Your task to perform on an android device: Search for the best rated headphones on AliExpress. Image 0: 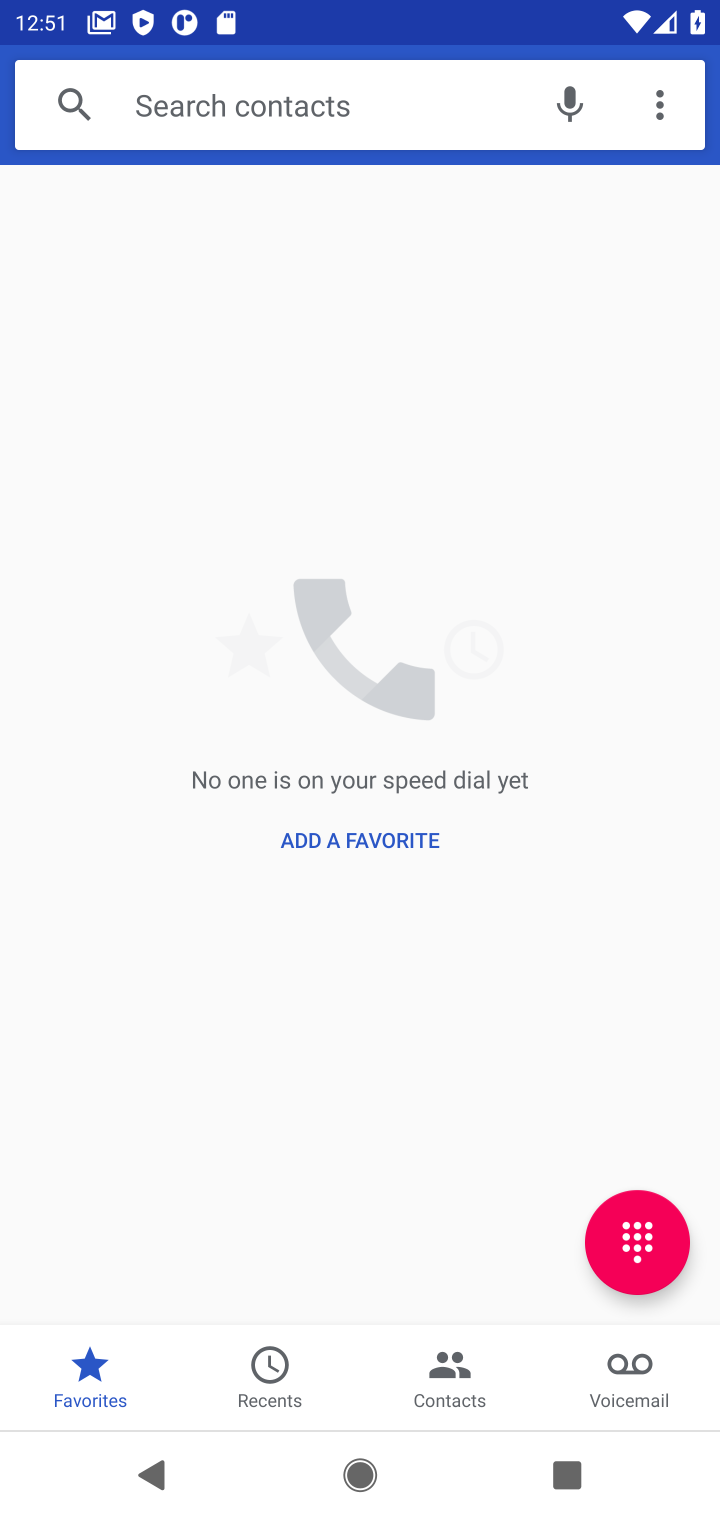
Step 0: press home button
Your task to perform on an android device: Search for the best rated headphones on AliExpress. Image 1: 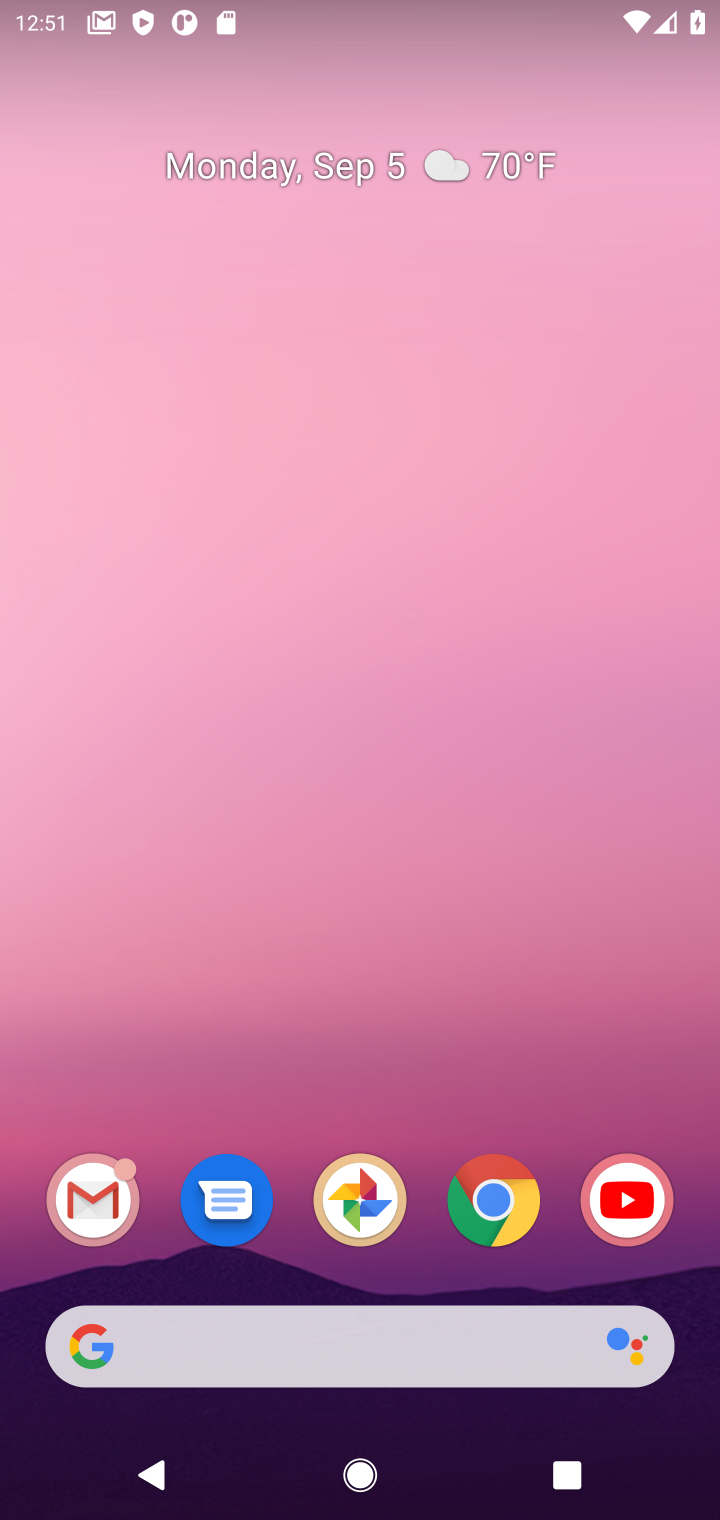
Step 1: click (511, 1196)
Your task to perform on an android device: Search for the best rated headphones on AliExpress. Image 2: 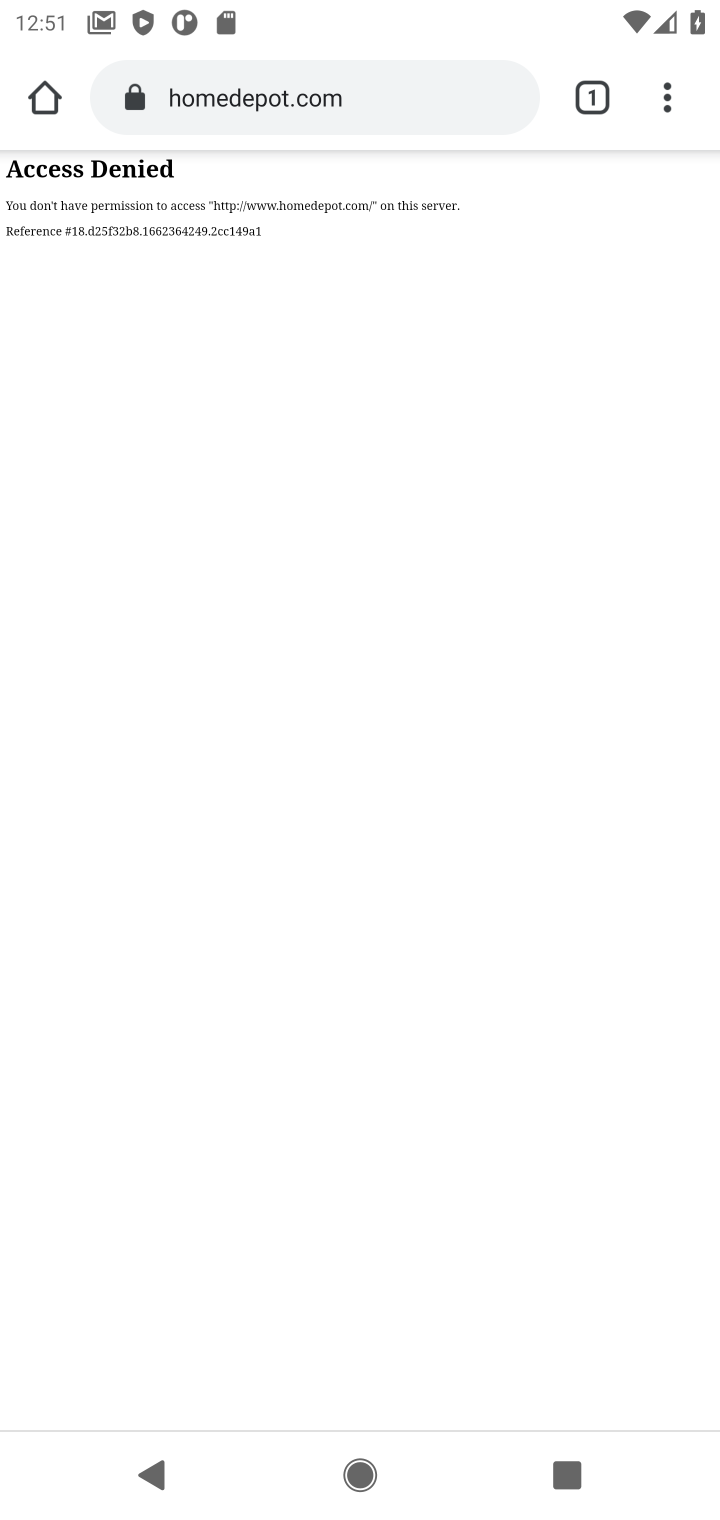
Step 2: click (511, 1196)
Your task to perform on an android device: Search for the best rated headphones on AliExpress. Image 3: 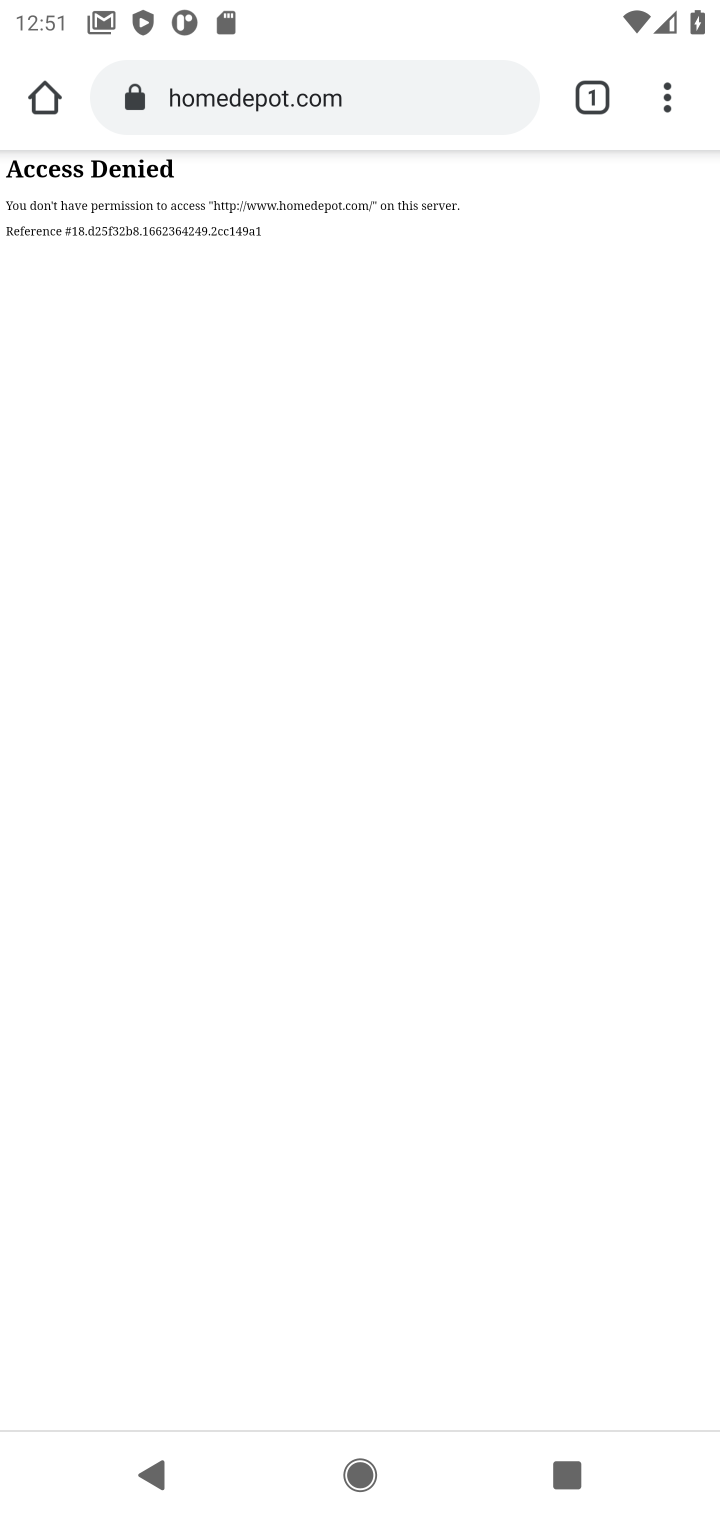
Step 3: click (409, 93)
Your task to perform on an android device: Search for the best rated headphones on AliExpress. Image 4: 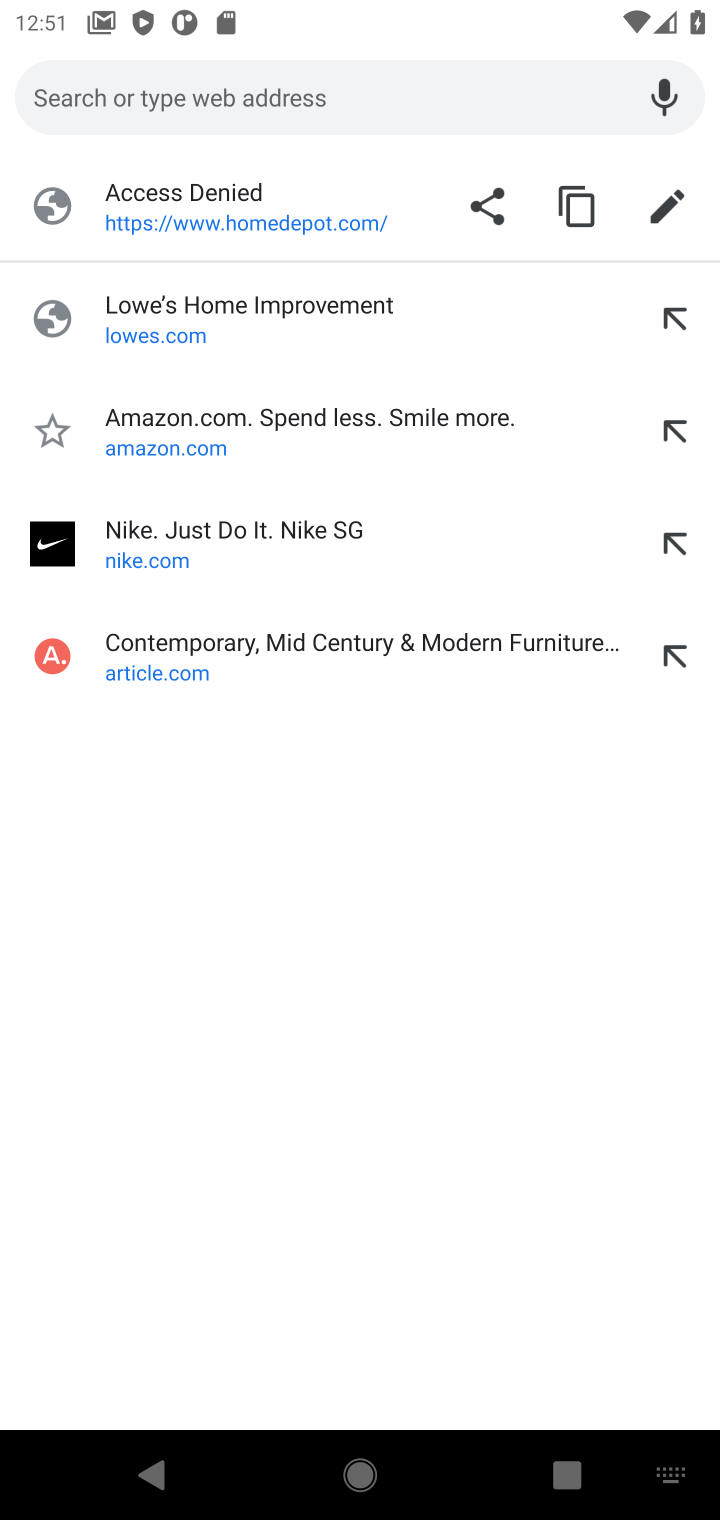
Step 4: type "aliexpress"
Your task to perform on an android device: Search for the best rated headphones on AliExpress. Image 5: 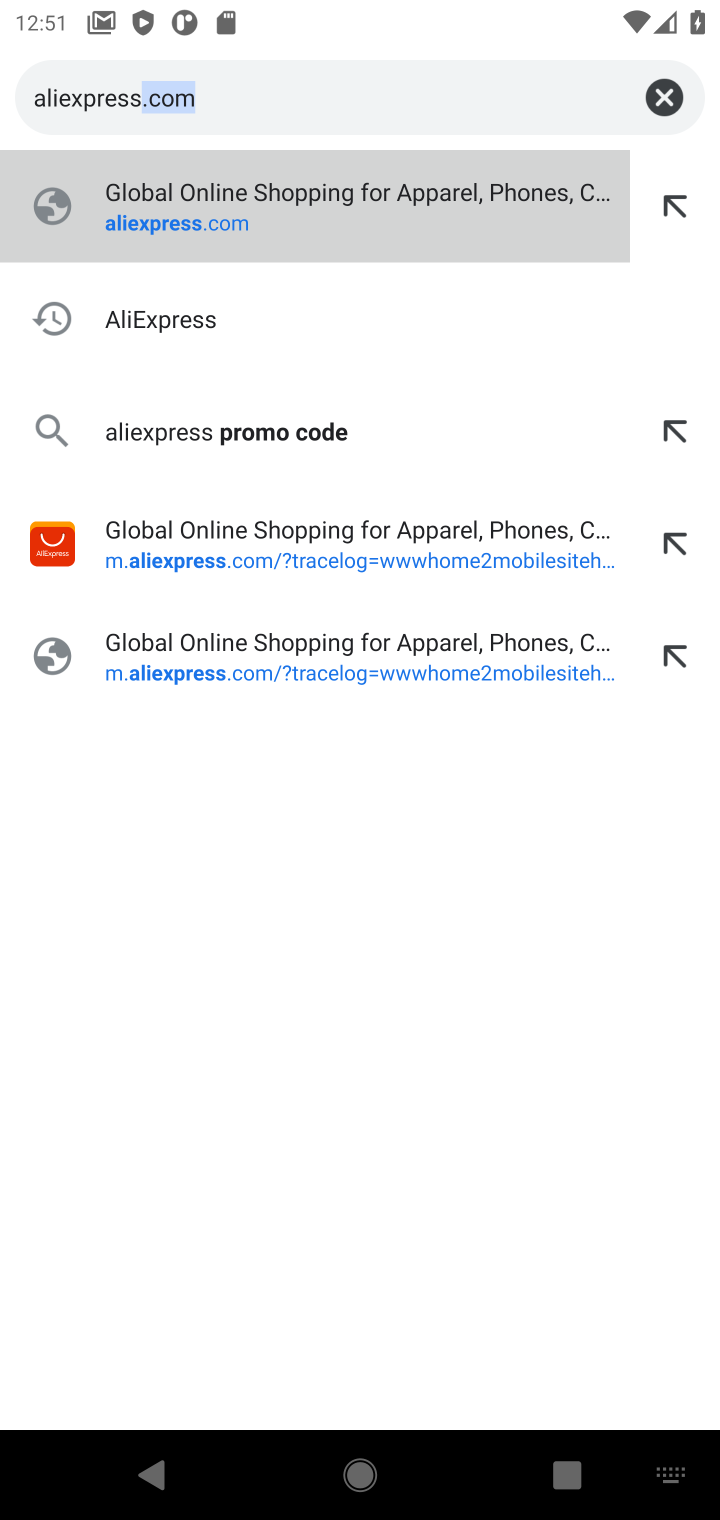
Step 5: click (338, 228)
Your task to perform on an android device: Search for the best rated headphones on AliExpress. Image 6: 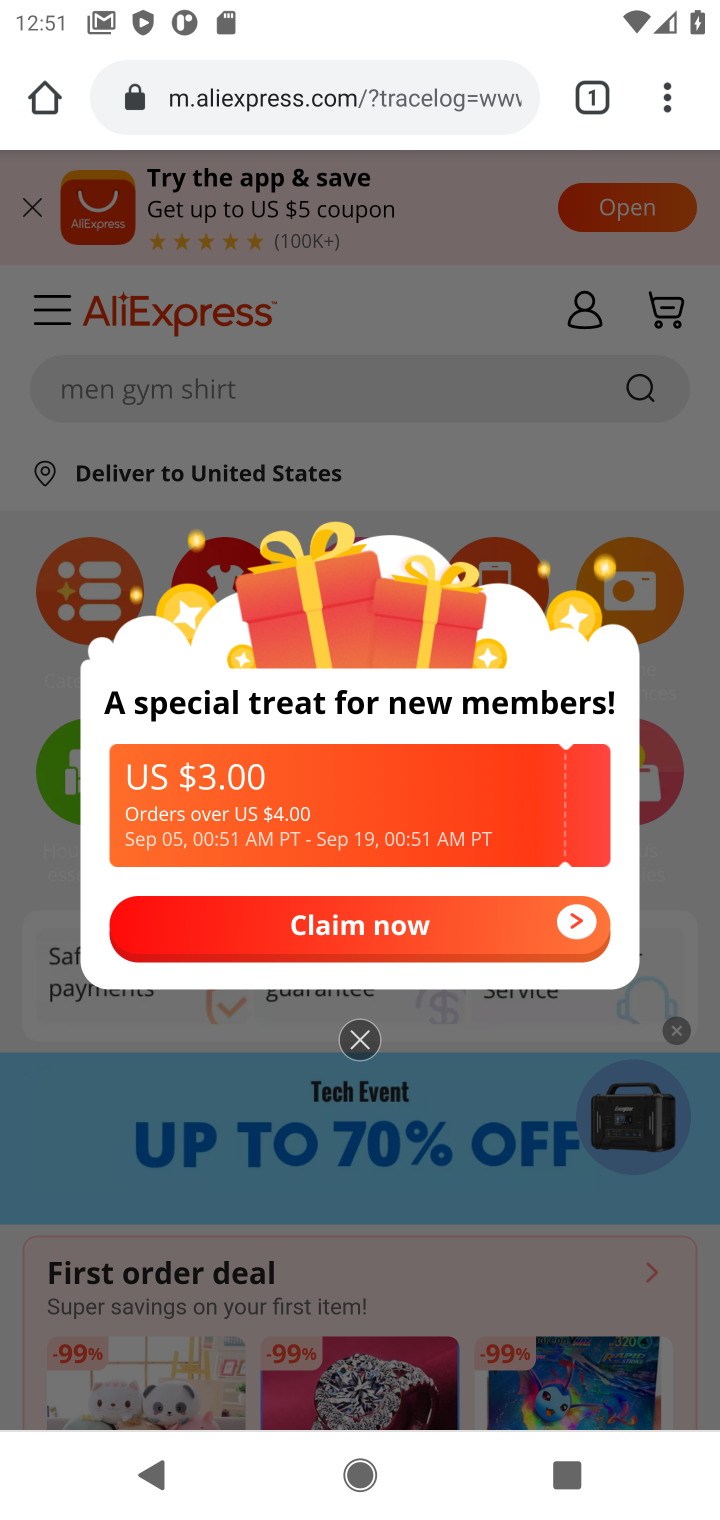
Step 6: click (352, 1043)
Your task to perform on an android device: Search for the best rated headphones on AliExpress. Image 7: 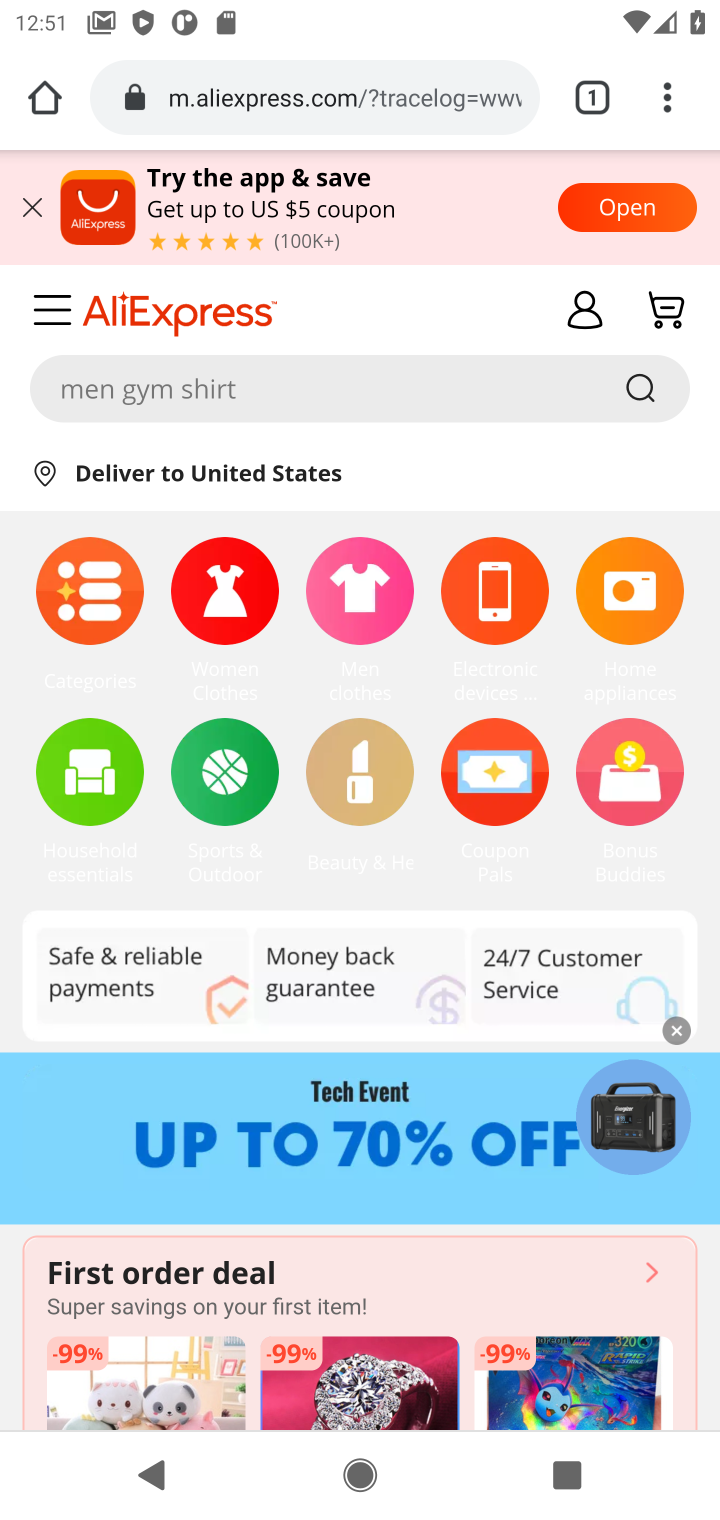
Step 7: click (367, 385)
Your task to perform on an android device: Search for the best rated headphones on AliExpress. Image 8: 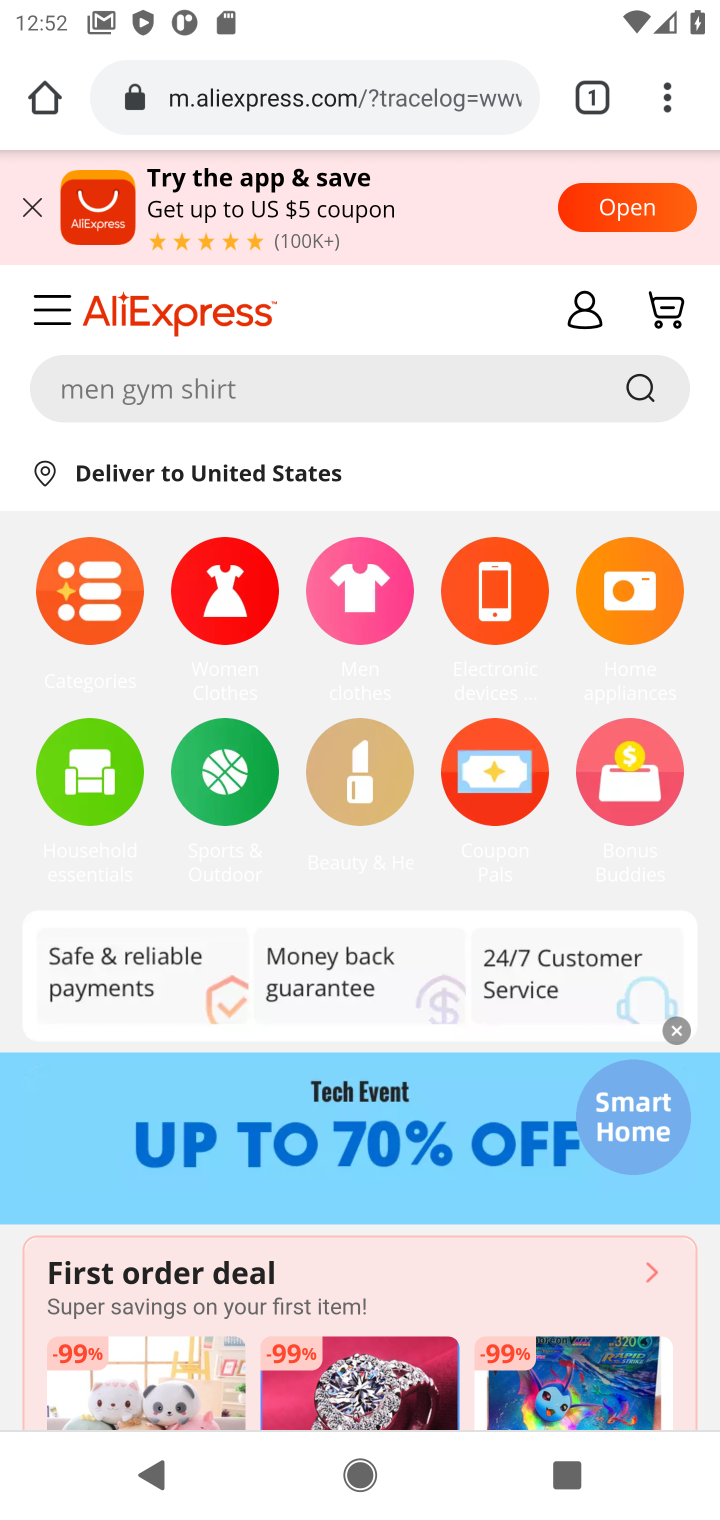
Step 8: click (649, 399)
Your task to perform on an android device: Search for the best rated headphones on AliExpress. Image 9: 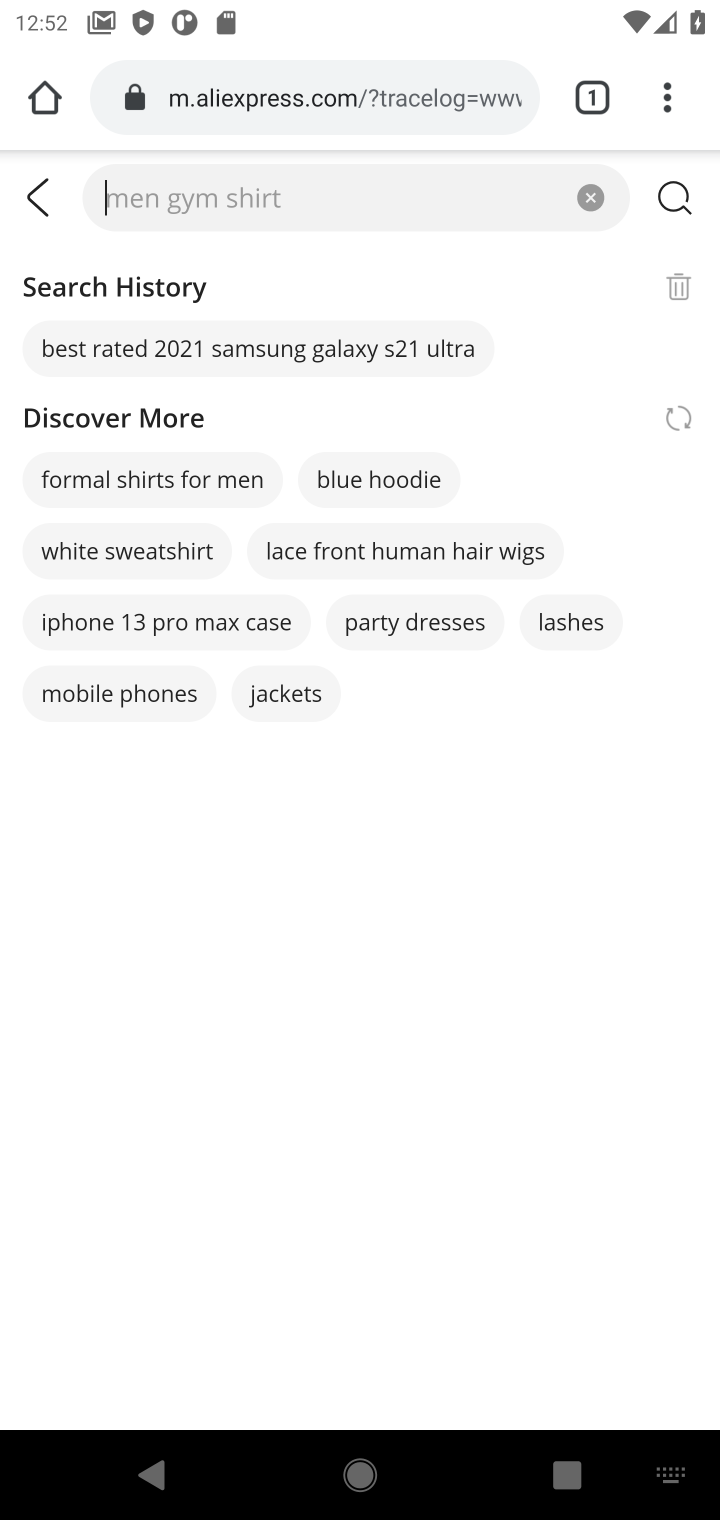
Step 9: type "best rated headphone"
Your task to perform on an android device: Search for the best rated headphones on AliExpress. Image 10: 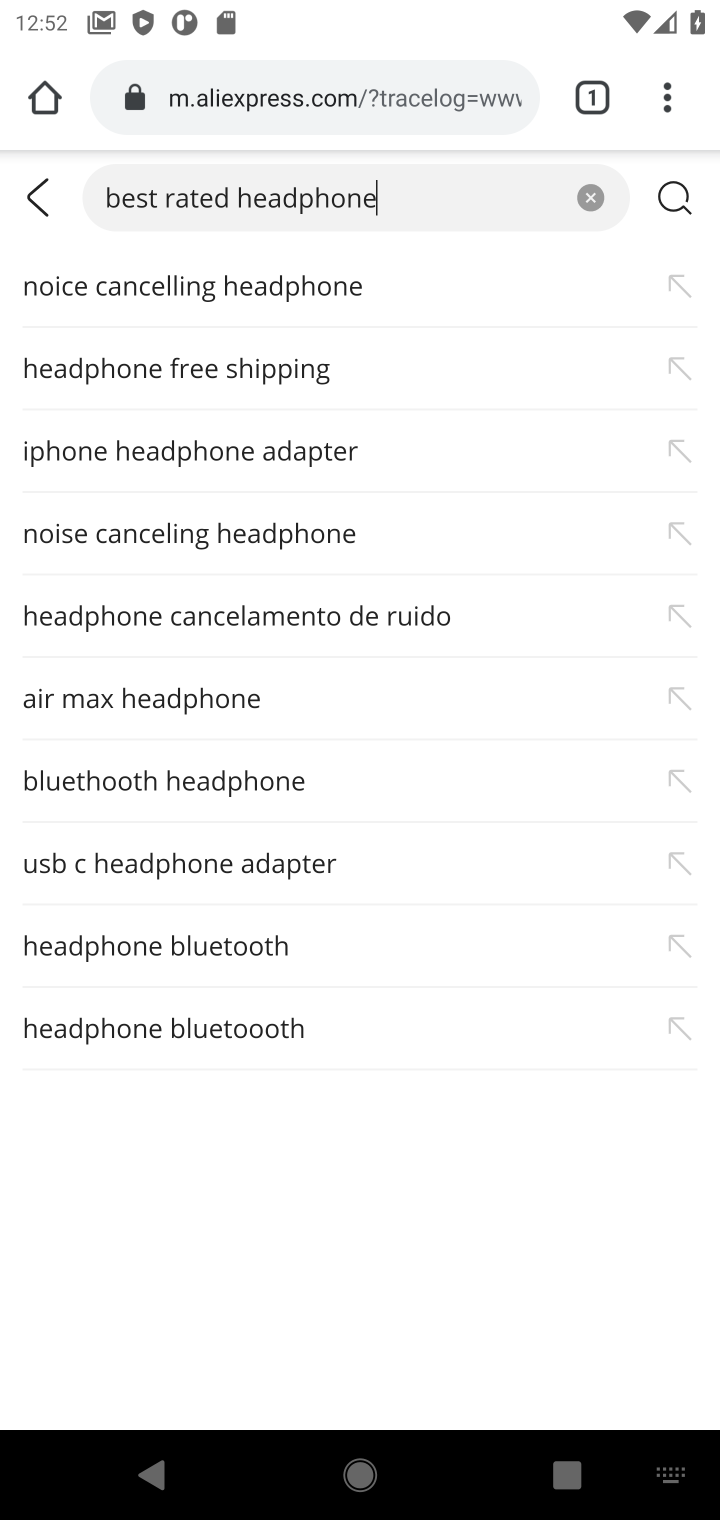
Step 10: type "s"
Your task to perform on an android device: Search for the best rated headphones on AliExpress. Image 11: 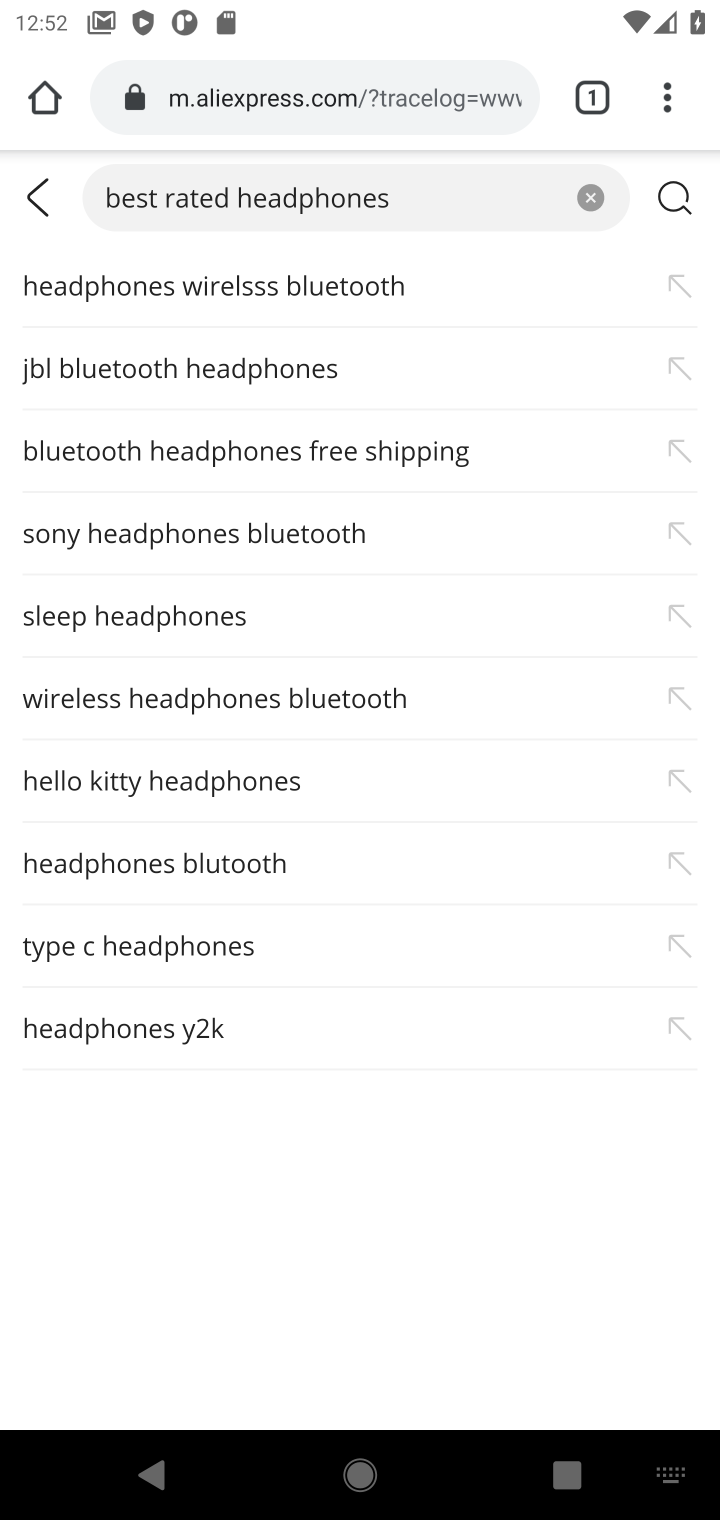
Step 11: click (674, 192)
Your task to perform on an android device: Search for the best rated headphones on AliExpress. Image 12: 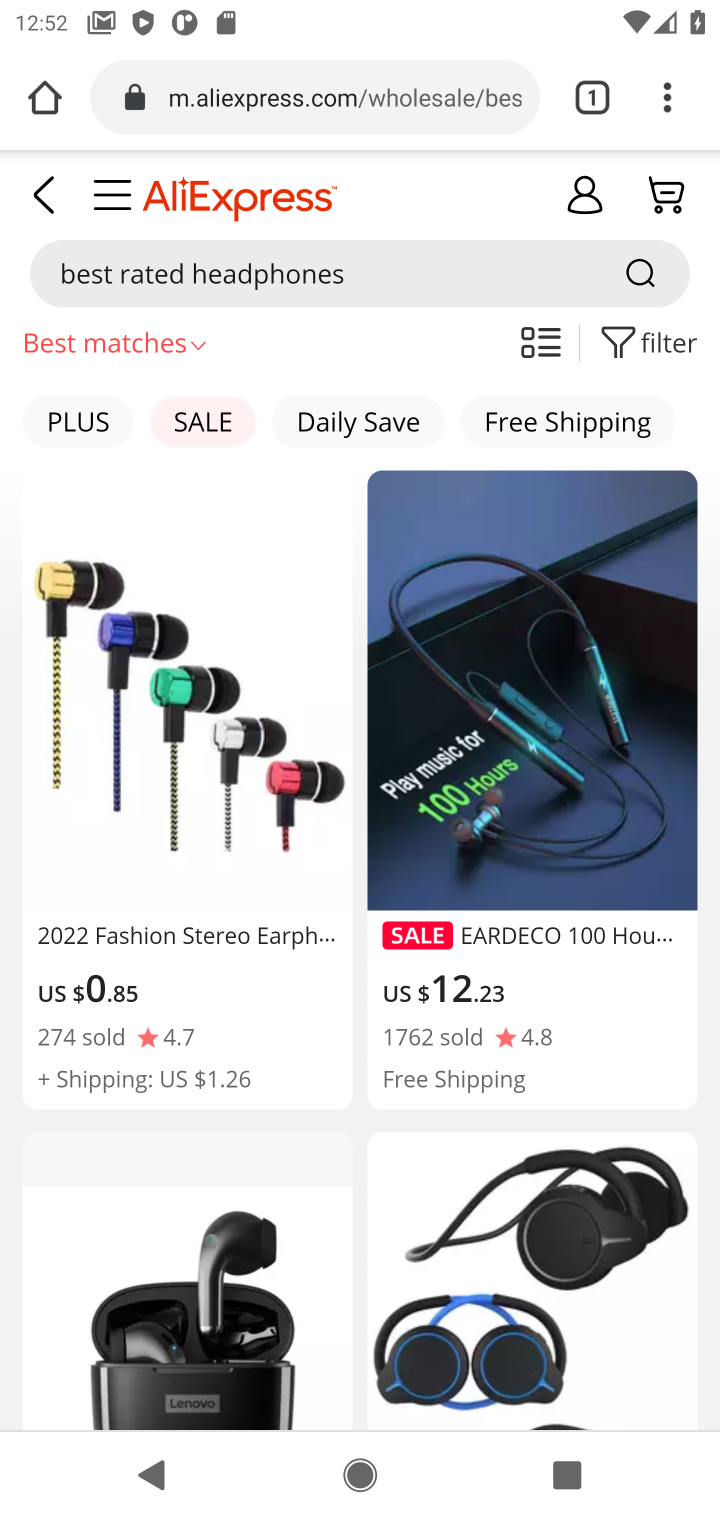
Step 12: task complete